Your task to perform on an android device: turn off translation in the chrome app Image 0: 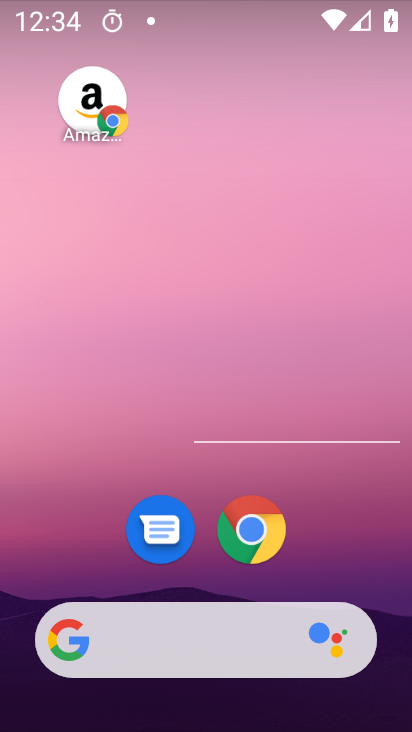
Step 0: click (265, 519)
Your task to perform on an android device: turn off translation in the chrome app Image 1: 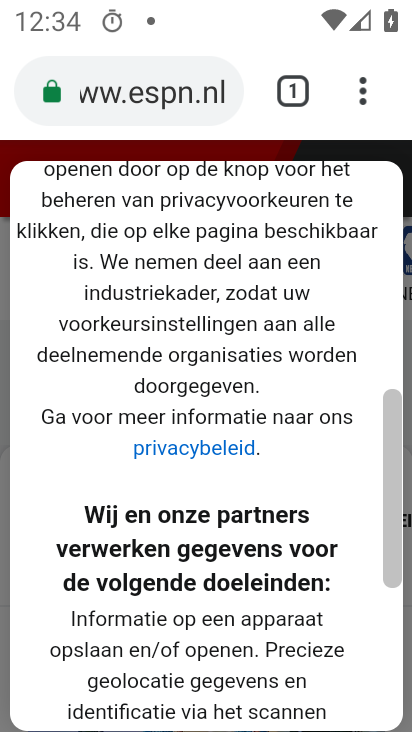
Step 1: drag from (354, 81) to (144, 552)
Your task to perform on an android device: turn off translation in the chrome app Image 2: 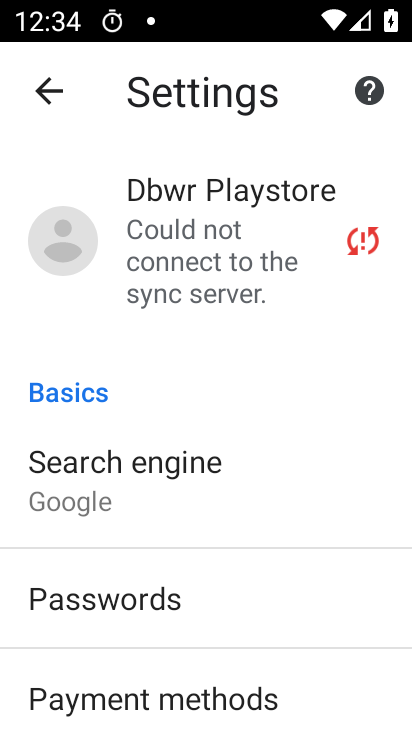
Step 2: drag from (166, 557) to (158, 164)
Your task to perform on an android device: turn off translation in the chrome app Image 3: 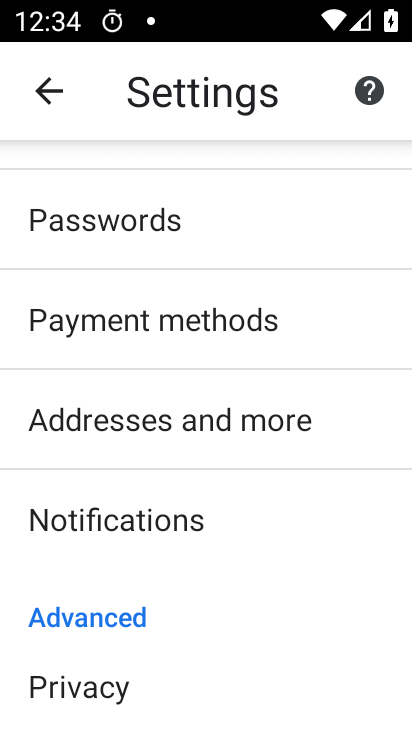
Step 3: drag from (161, 562) to (178, 182)
Your task to perform on an android device: turn off translation in the chrome app Image 4: 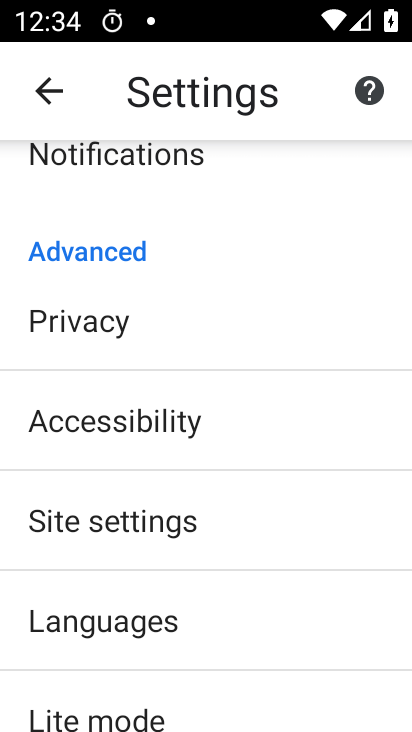
Step 4: click (115, 608)
Your task to perform on an android device: turn off translation in the chrome app Image 5: 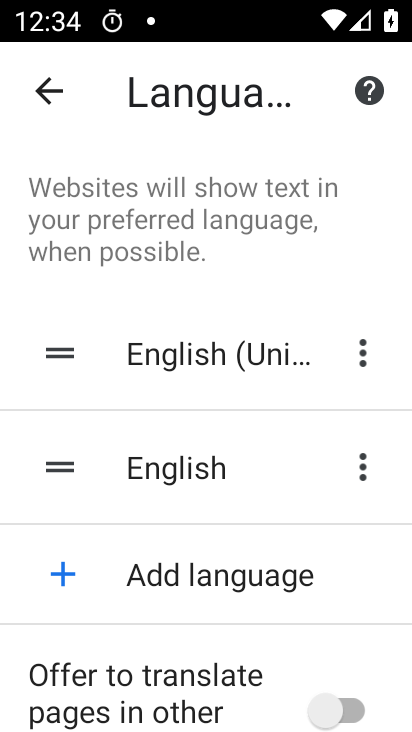
Step 5: task complete